Your task to perform on an android device: check battery use Image 0: 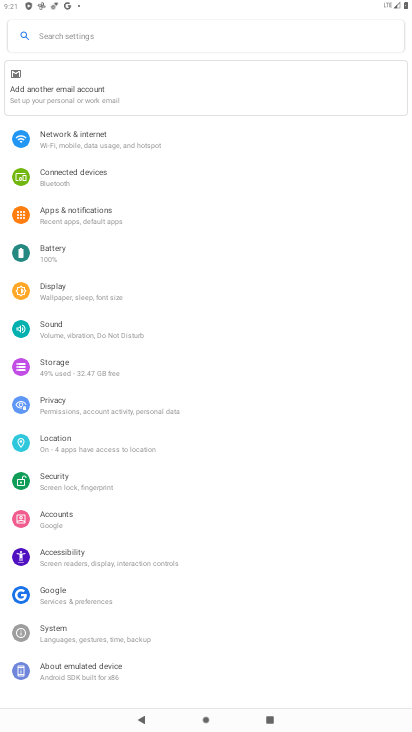
Step 0: click (120, 258)
Your task to perform on an android device: check battery use Image 1: 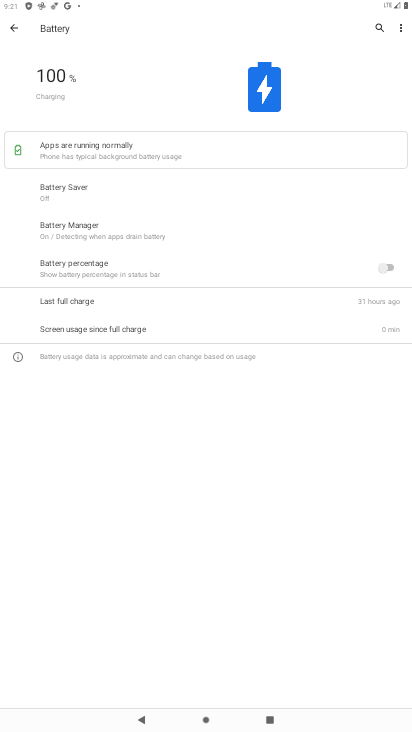
Step 1: task complete